Your task to perform on an android device: Go to Google maps Image 0: 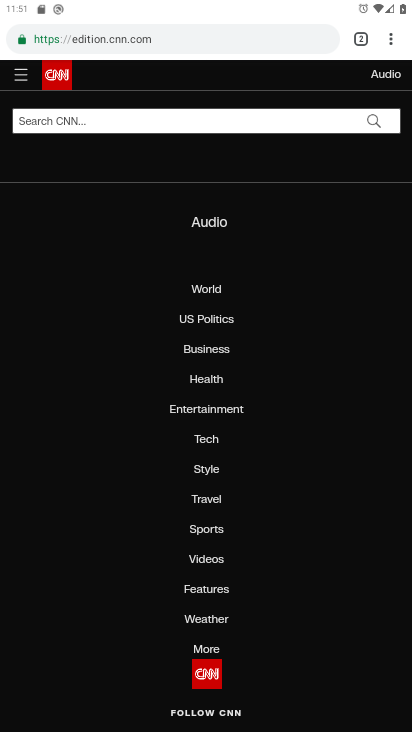
Step 0: press home button
Your task to perform on an android device: Go to Google maps Image 1: 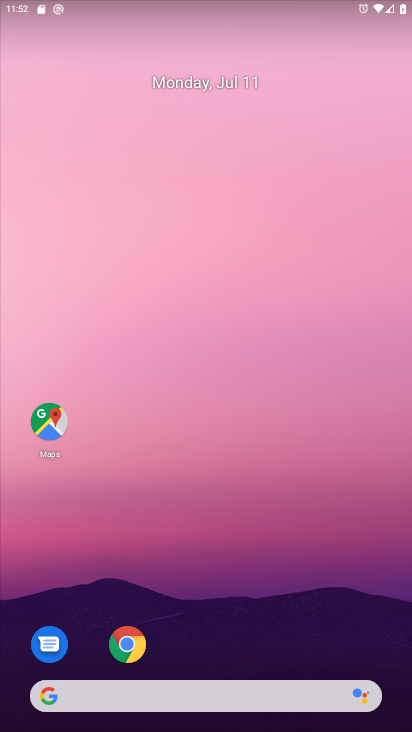
Step 1: click (48, 432)
Your task to perform on an android device: Go to Google maps Image 2: 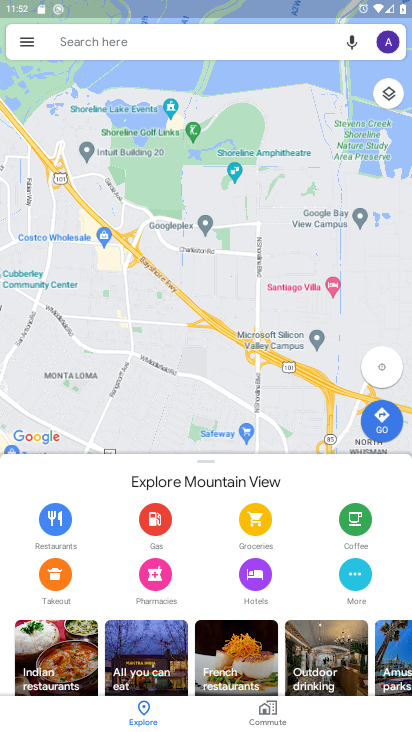
Step 2: task complete